Your task to perform on an android device: How big is a tiger? Image 0: 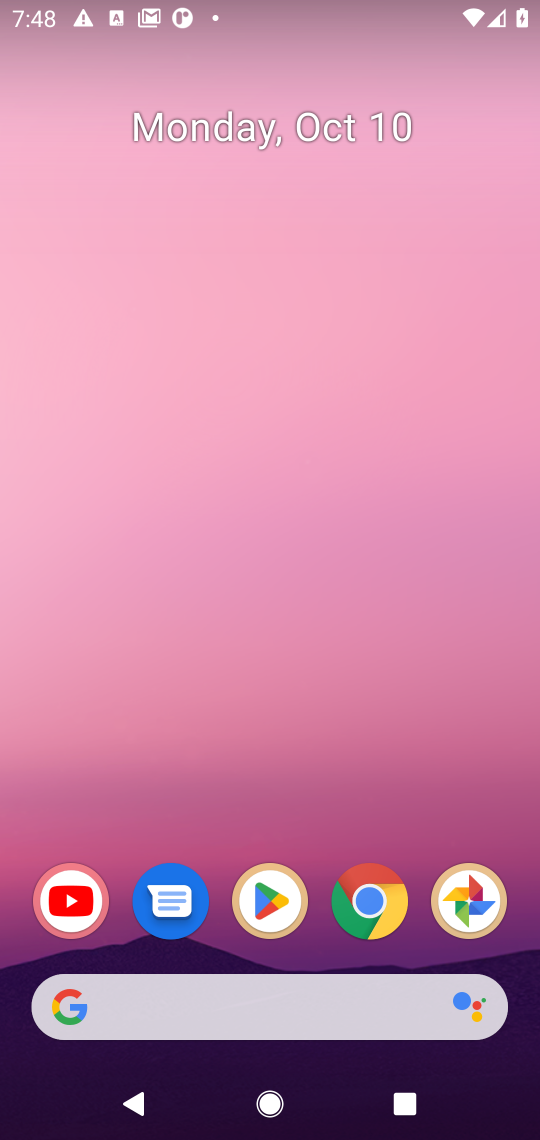
Step 0: click (339, 1010)
Your task to perform on an android device: How big is a tiger? Image 1: 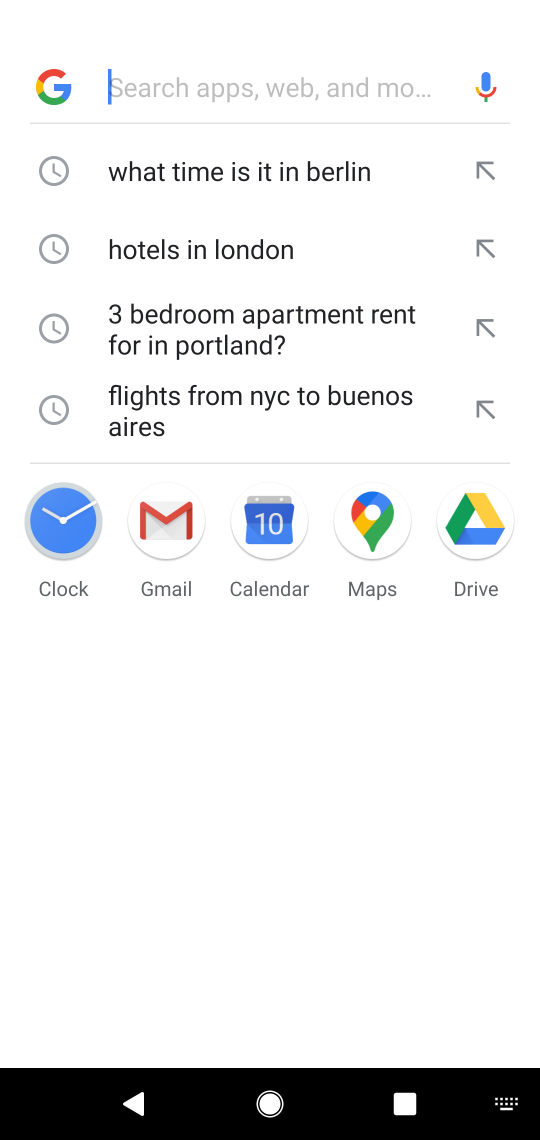
Step 1: type "how big is a tiger"
Your task to perform on an android device: How big is a tiger? Image 2: 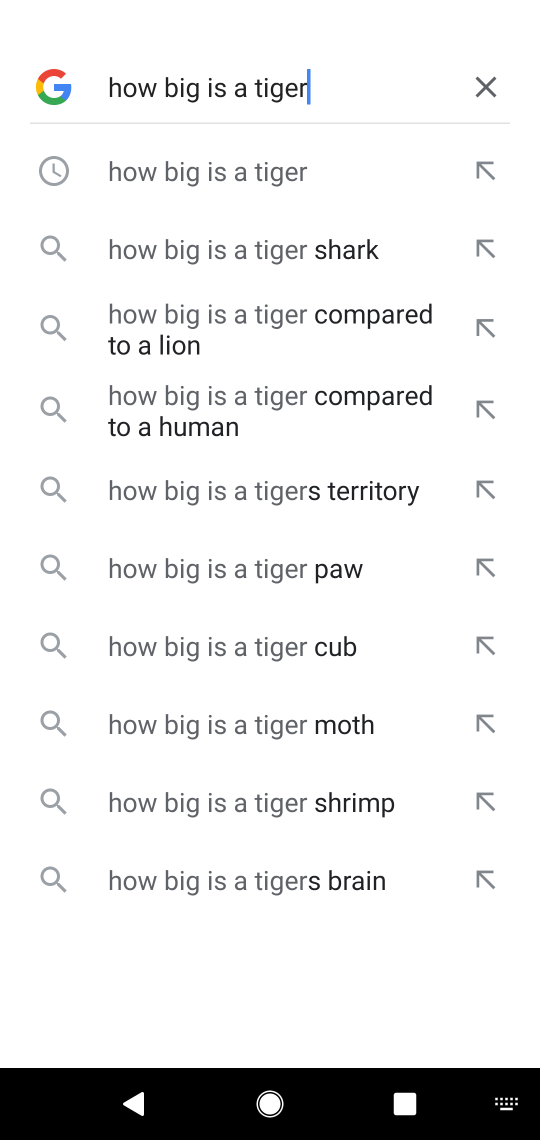
Step 2: click (237, 183)
Your task to perform on an android device: How big is a tiger? Image 3: 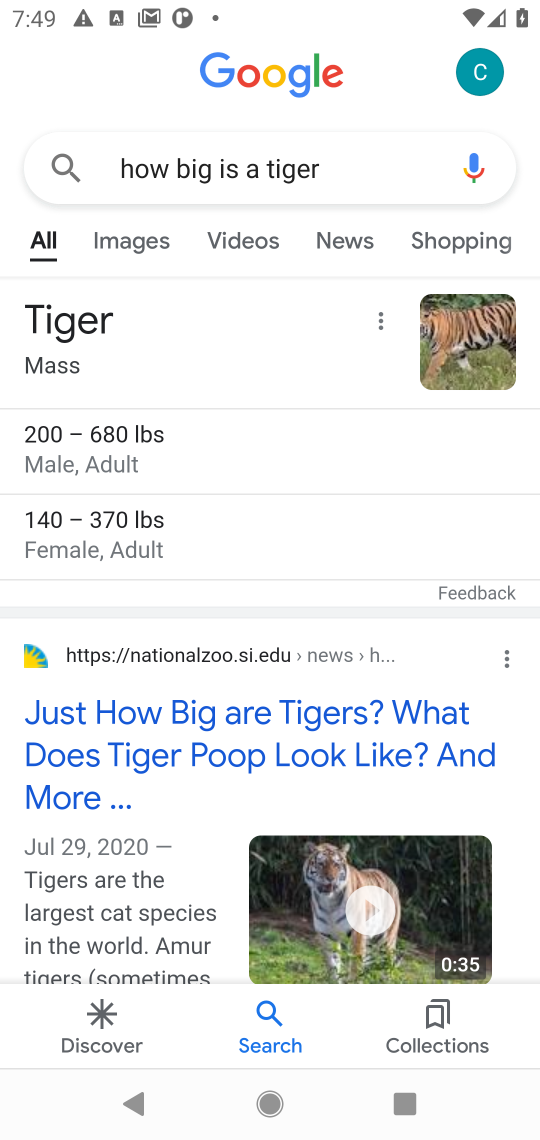
Step 3: drag from (187, 812) to (264, 304)
Your task to perform on an android device: How big is a tiger? Image 4: 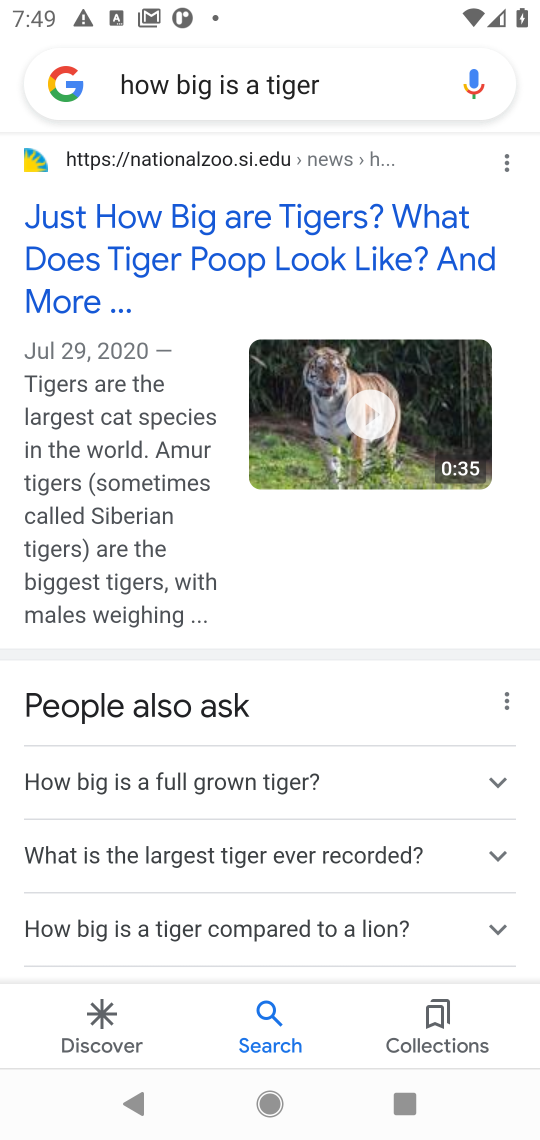
Step 4: click (239, 264)
Your task to perform on an android device: How big is a tiger? Image 5: 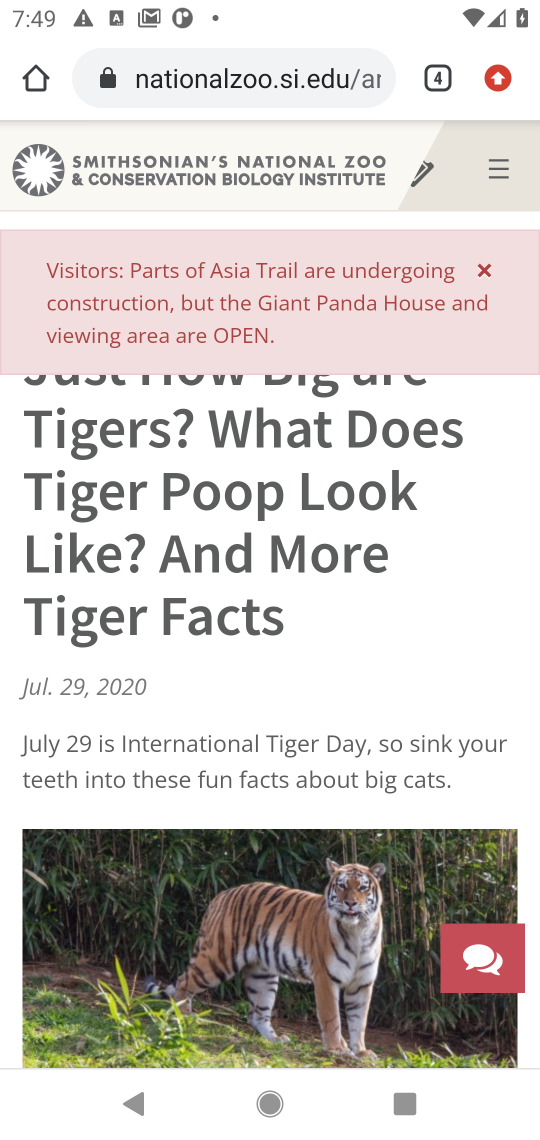
Step 5: drag from (341, 681) to (403, 220)
Your task to perform on an android device: How big is a tiger? Image 6: 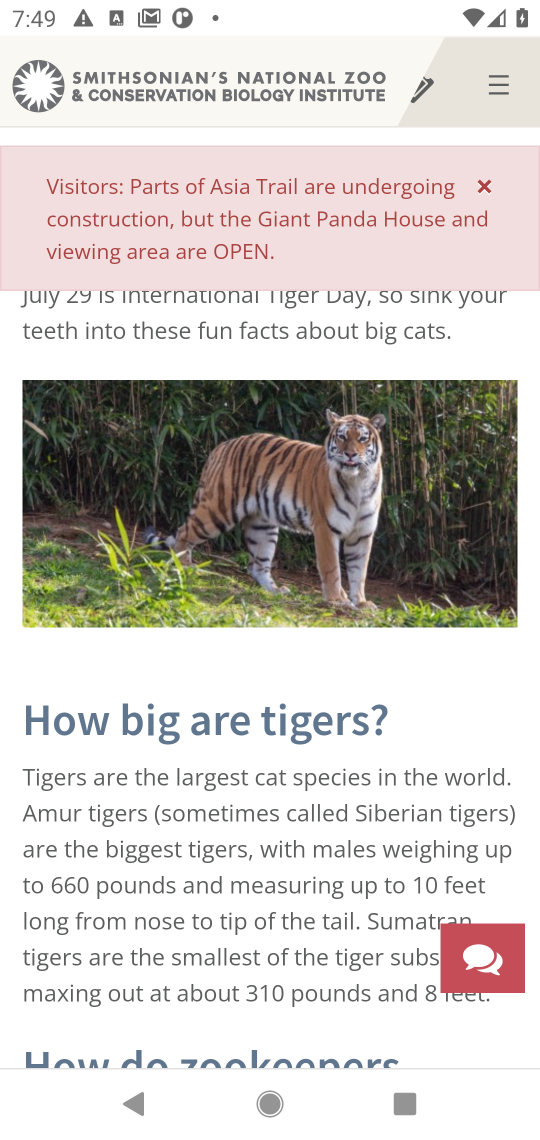
Step 6: click (483, 182)
Your task to perform on an android device: How big is a tiger? Image 7: 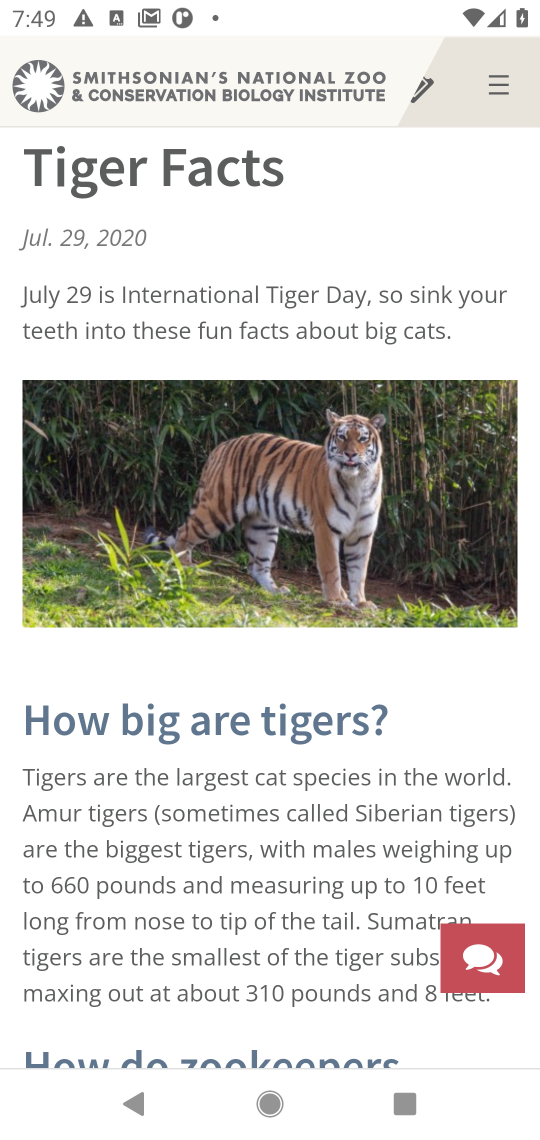
Step 7: drag from (432, 587) to (432, 363)
Your task to perform on an android device: How big is a tiger? Image 8: 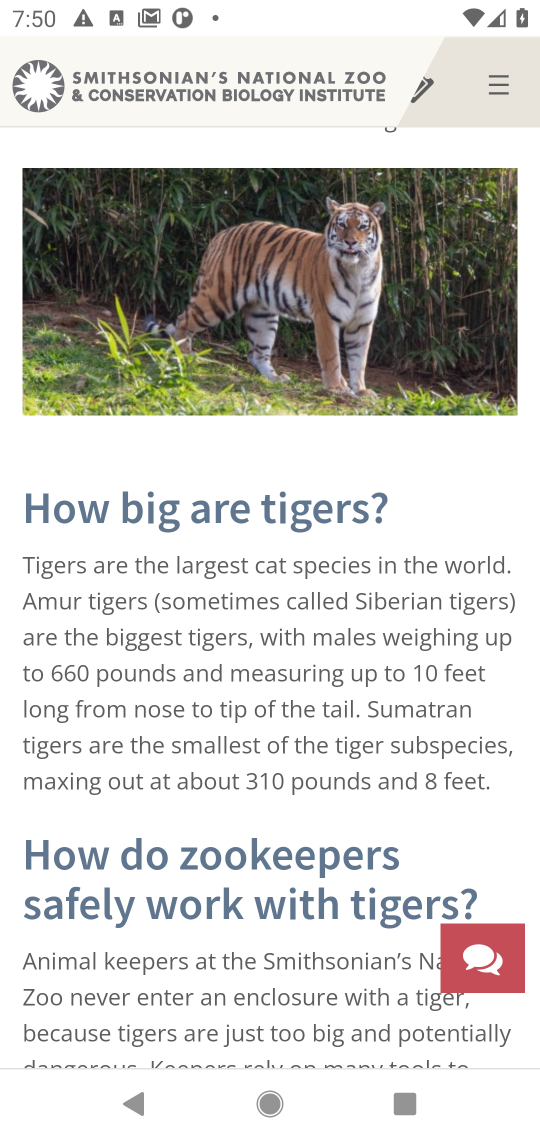
Step 8: drag from (408, 513) to (446, 360)
Your task to perform on an android device: How big is a tiger? Image 9: 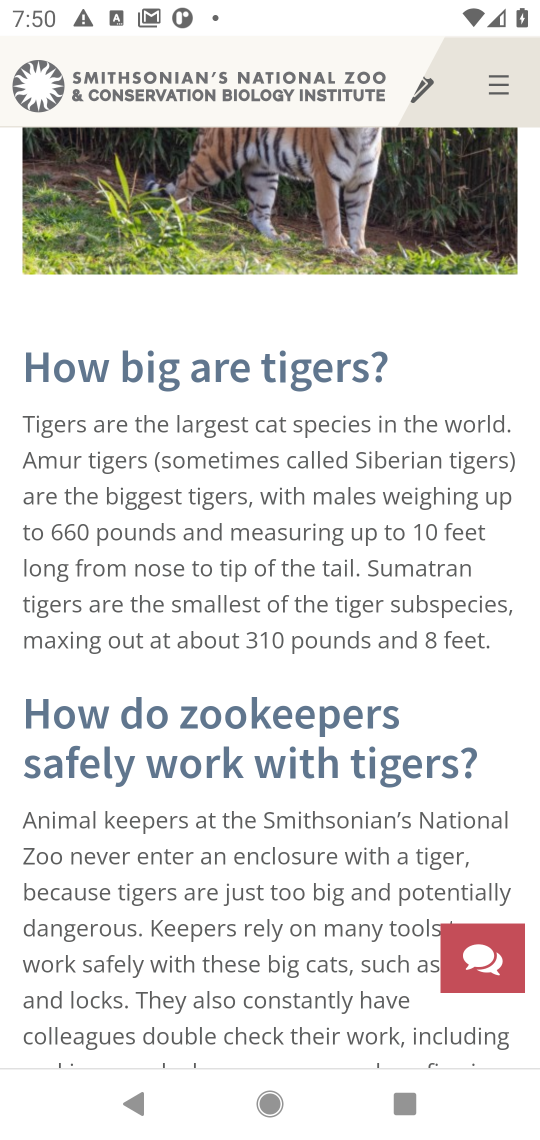
Step 9: drag from (494, 640) to (459, 212)
Your task to perform on an android device: How big is a tiger? Image 10: 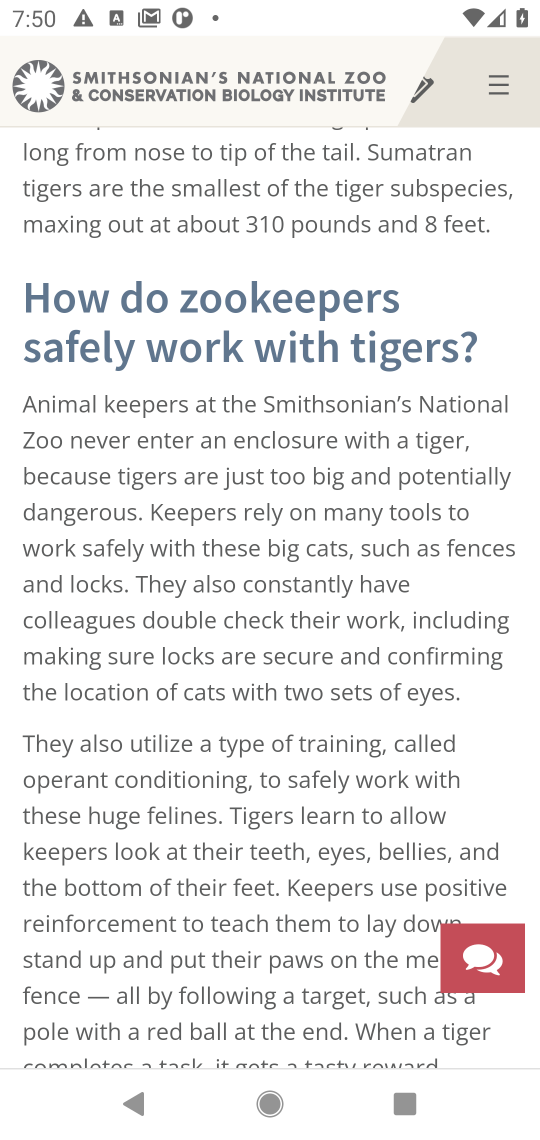
Step 10: click (474, 637)
Your task to perform on an android device: How big is a tiger? Image 11: 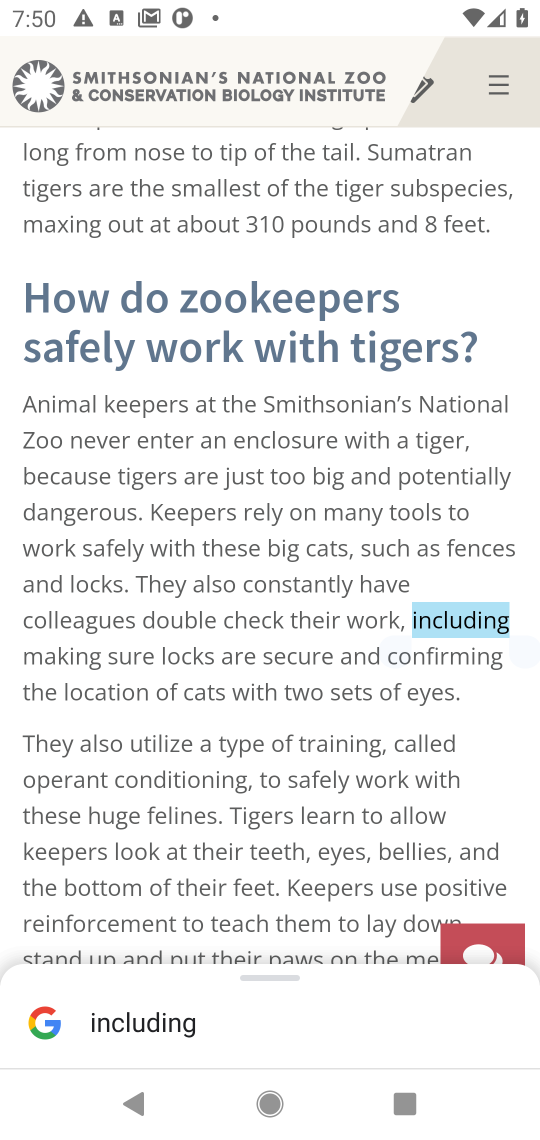
Step 11: click (491, 685)
Your task to perform on an android device: How big is a tiger? Image 12: 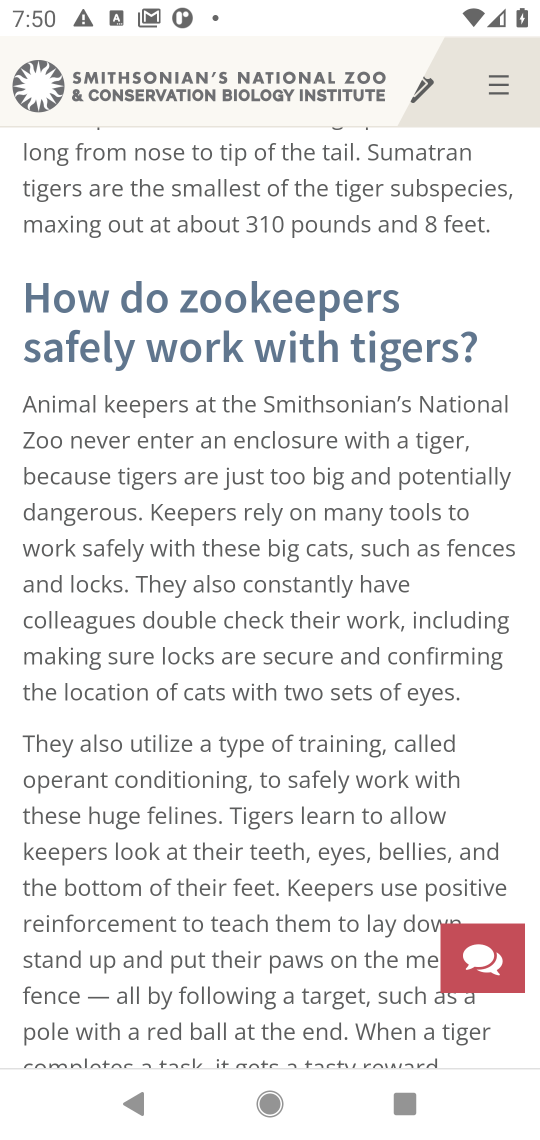
Step 12: drag from (491, 732) to (491, 587)
Your task to perform on an android device: How big is a tiger? Image 13: 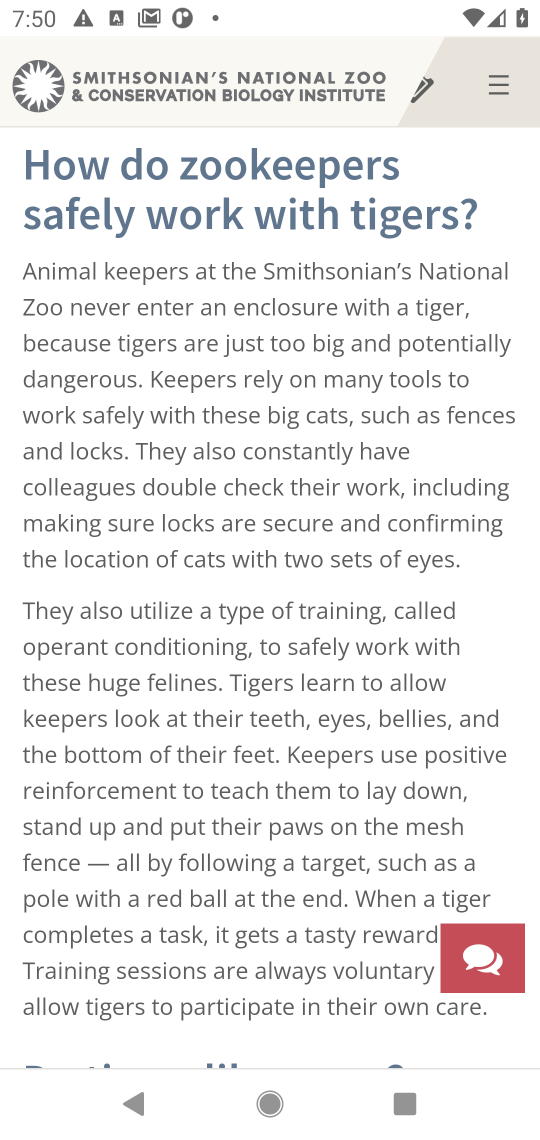
Step 13: drag from (306, 677) to (385, 276)
Your task to perform on an android device: How big is a tiger? Image 14: 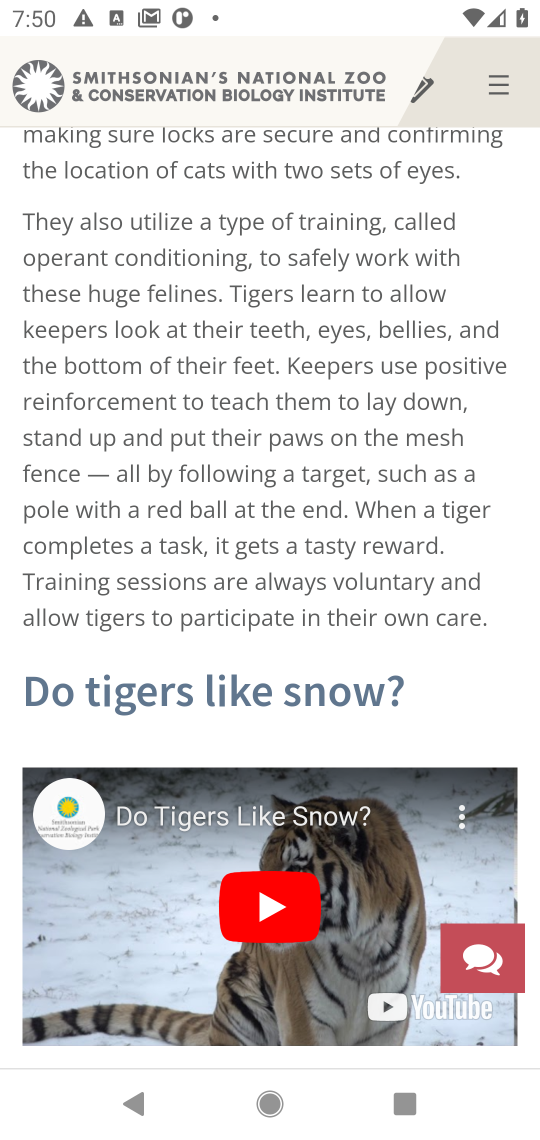
Step 14: drag from (411, 606) to (398, 375)
Your task to perform on an android device: How big is a tiger? Image 15: 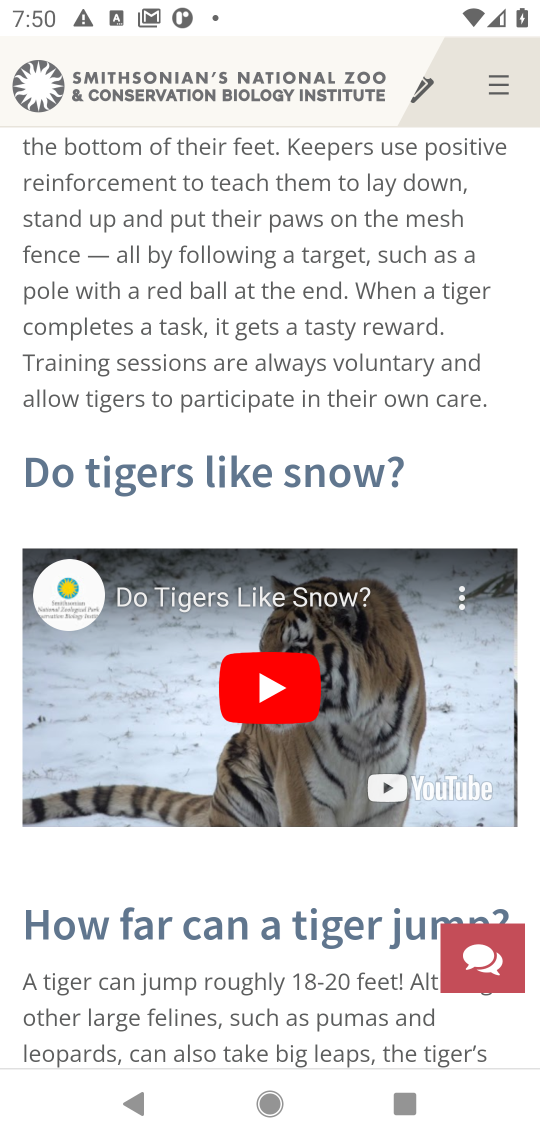
Step 15: drag from (412, 399) to (427, 186)
Your task to perform on an android device: How big is a tiger? Image 16: 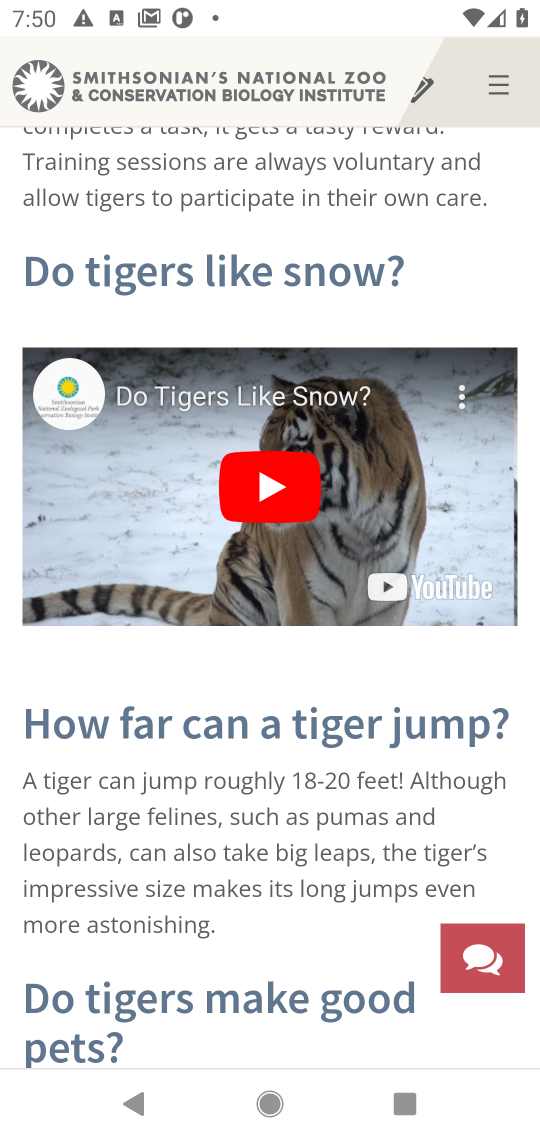
Step 16: drag from (284, 928) to (340, 307)
Your task to perform on an android device: How big is a tiger? Image 17: 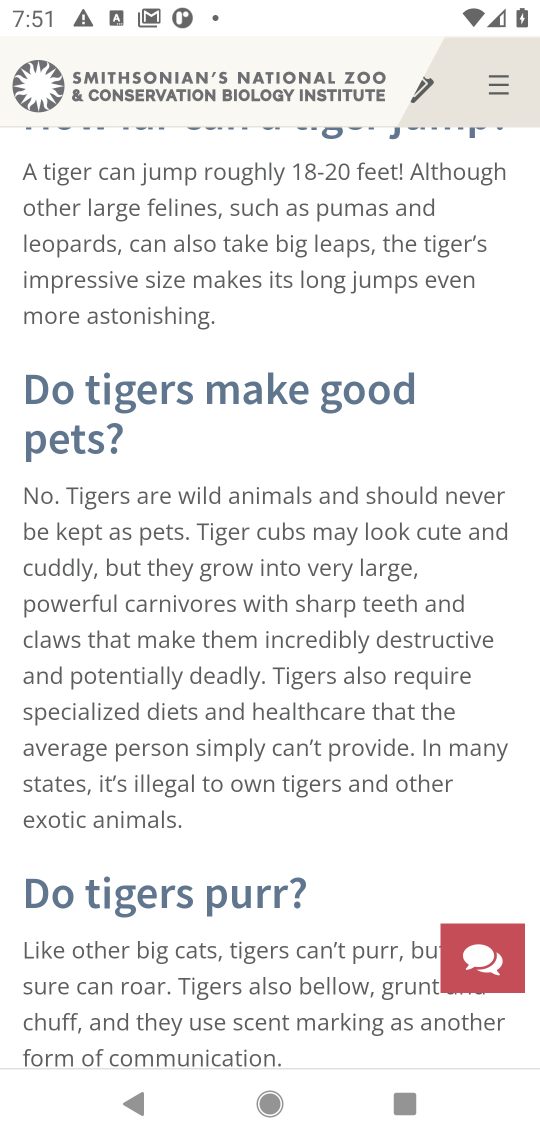
Step 17: click (318, 779)
Your task to perform on an android device: How big is a tiger? Image 18: 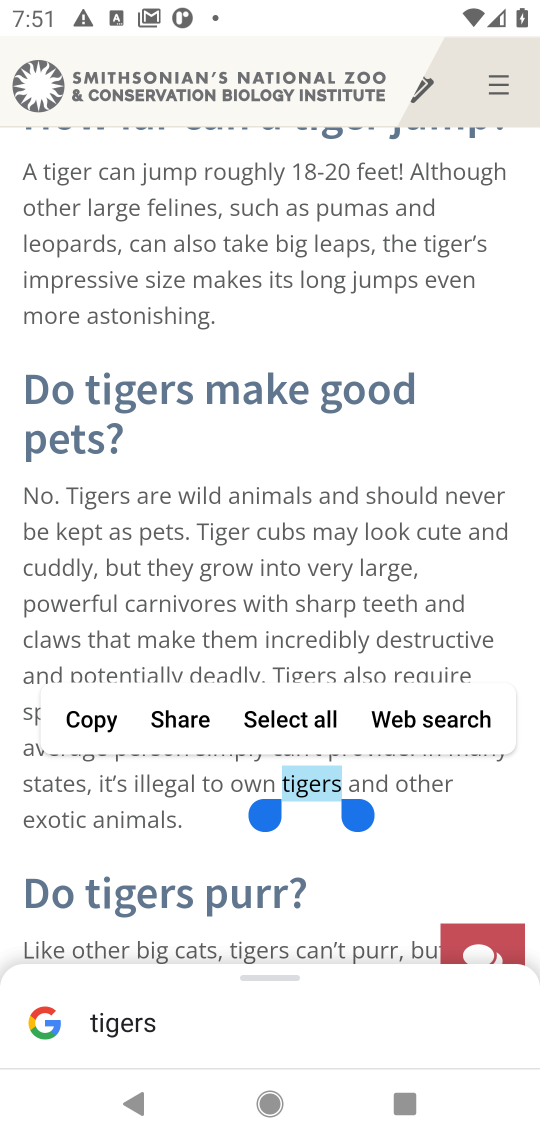
Step 18: task complete